Your task to perform on an android device: Go to accessibility settings Image 0: 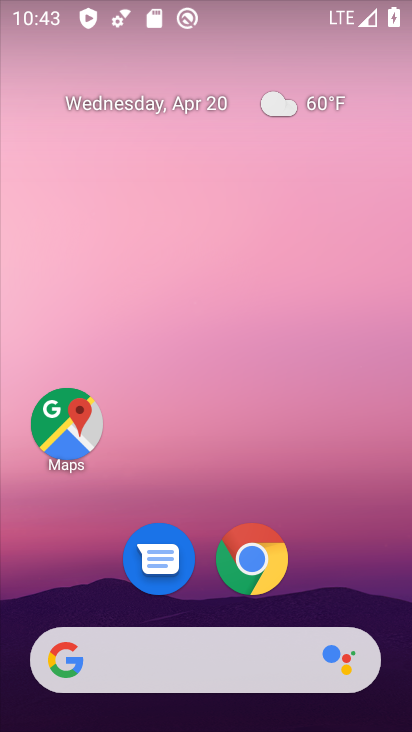
Step 0: drag from (201, 726) to (174, 156)
Your task to perform on an android device: Go to accessibility settings Image 1: 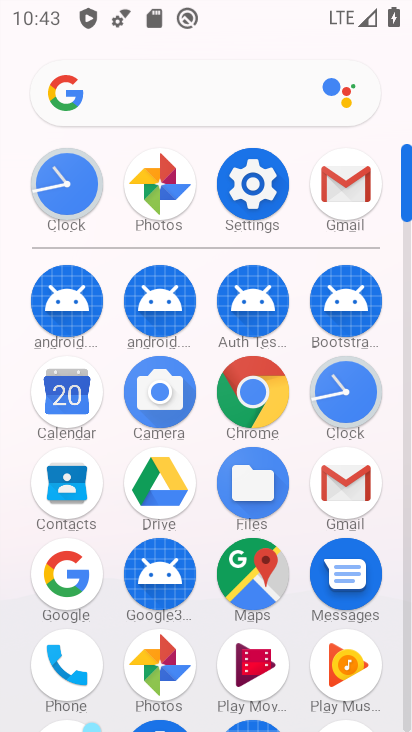
Step 1: click (256, 179)
Your task to perform on an android device: Go to accessibility settings Image 2: 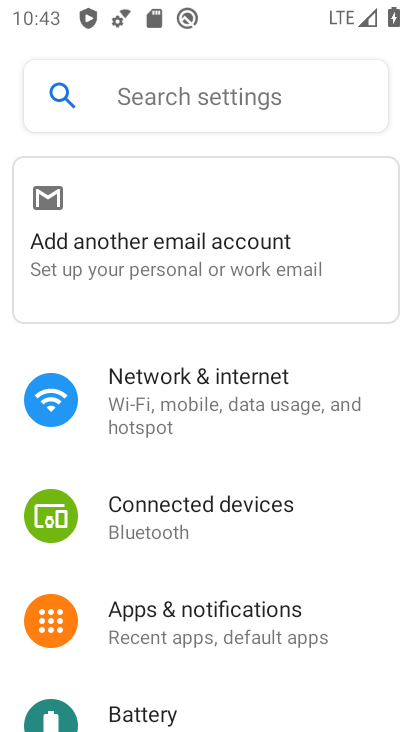
Step 2: drag from (242, 702) to (226, 208)
Your task to perform on an android device: Go to accessibility settings Image 3: 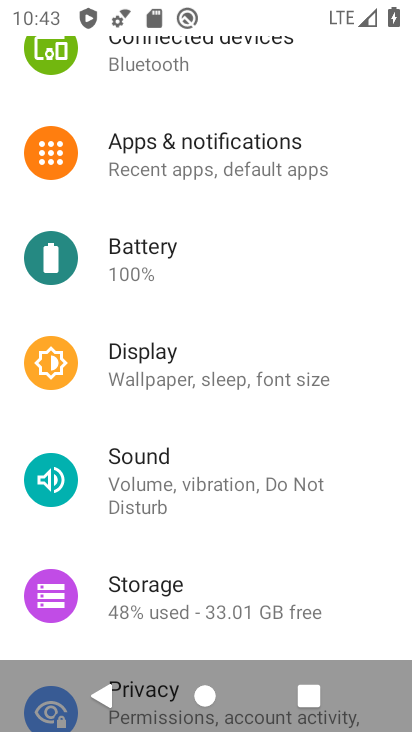
Step 3: drag from (223, 627) to (209, 124)
Your task to perform on an android device: Go to accessibility settings Image 4: 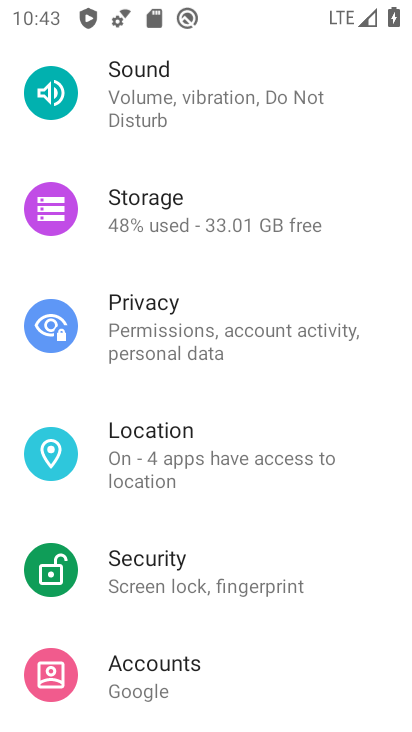
Step 4: drag from (176, 612) to (185, 213)
Your task to perform on an android device: Go to accessibility settings Image 5: 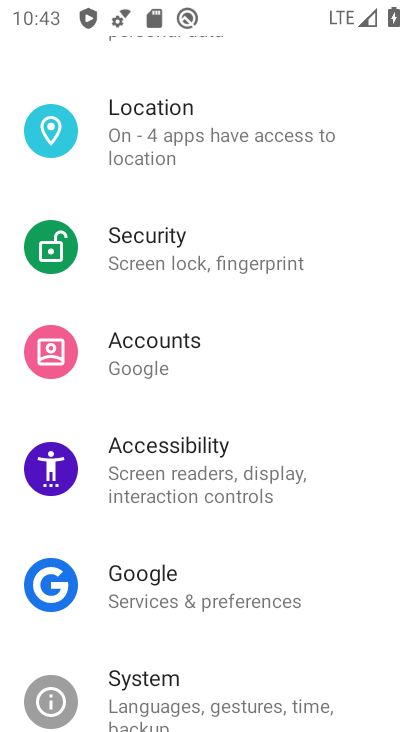
Step 5: click (166, 471)
Your task to perform on an android device: Go to accessibility settings Image 6: 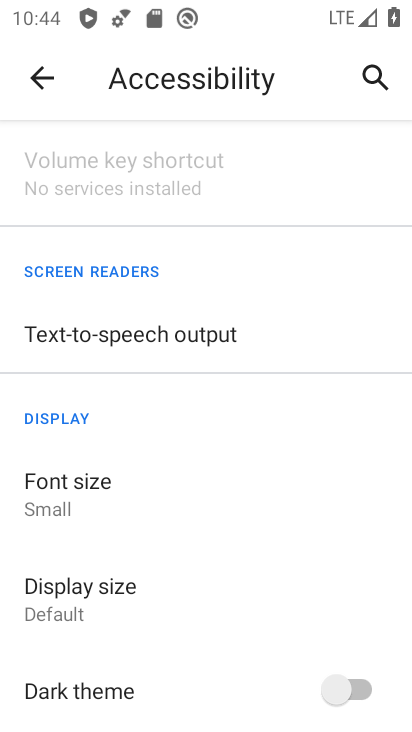
Step 6: task complete